Your task to perform on an android device: turn off sleep mode Image 0: 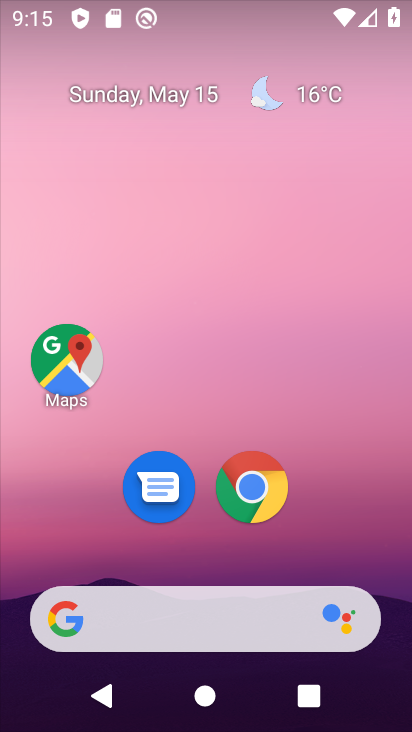
Step 0: drag from (396, 607) to (298, 34)
Your task to perform on an android device: turn off sleep mode Image 1: 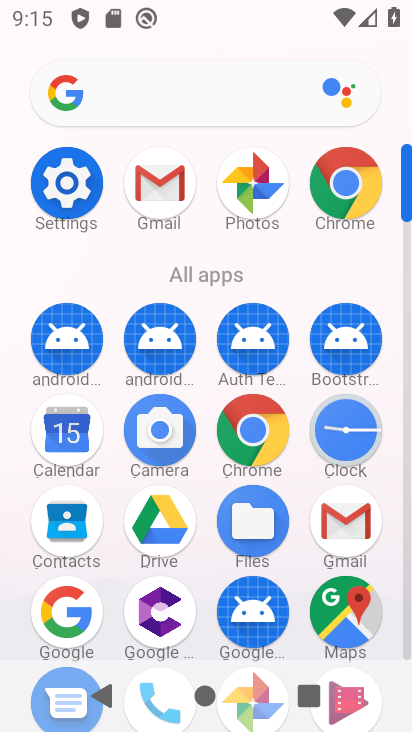
Step 1: click (407, 649)
Your task to perform on an android device: turn off sleep mode Image 2: 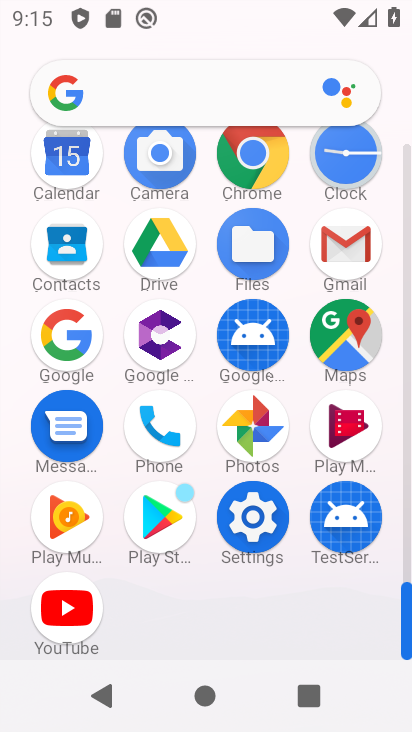
Step 2: click (253, 513)
Your task to perform on an android device: turn off sleep mode Image 3: 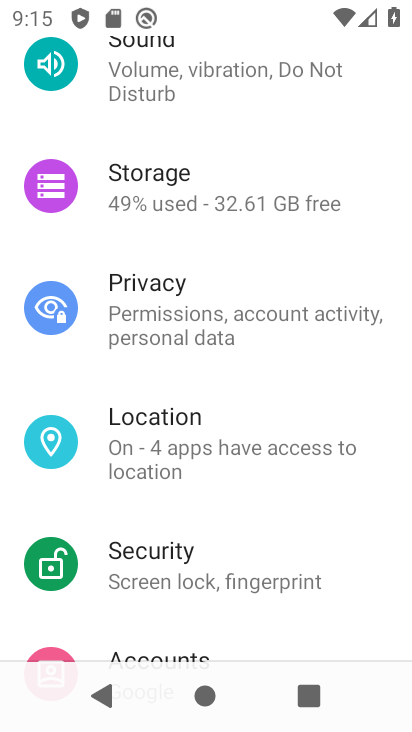
Step 3: drag from (363, 159) to (397, 479)
Your task to perform on an android device: turn off sleep mode Image 4: 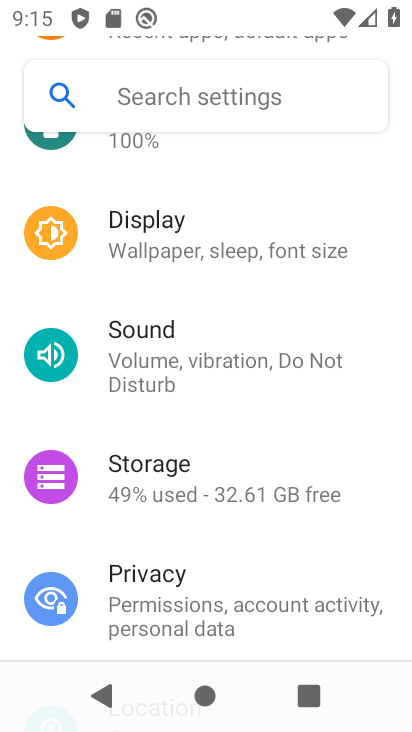
Step 4: drag from (374, 258) to (346, 479)
Your task to perform on an android device: turn off sleep mode Image 5: 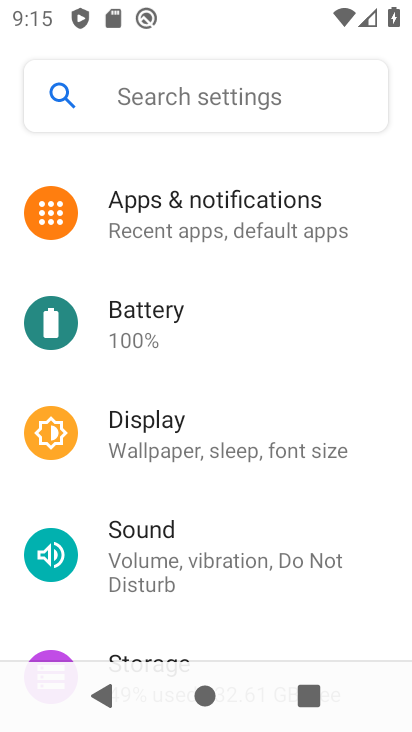
Step 5: click (150, 456)
Your task to perform on an android device: turn off sleep mode Image 6: 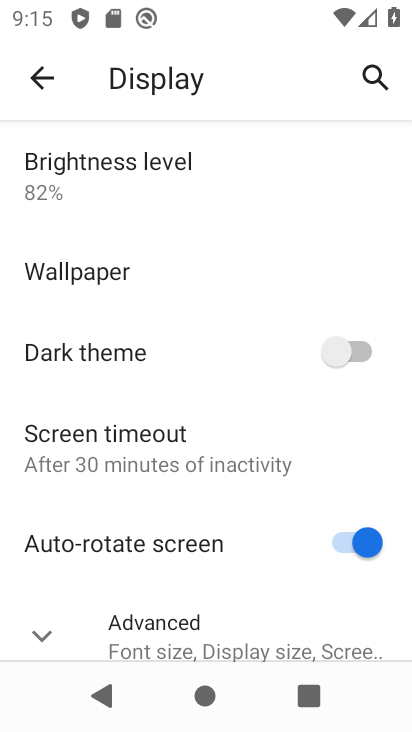
Step 6: click (27, 603)
Your task to perform on an android device: turn off sleep mode Image 7: 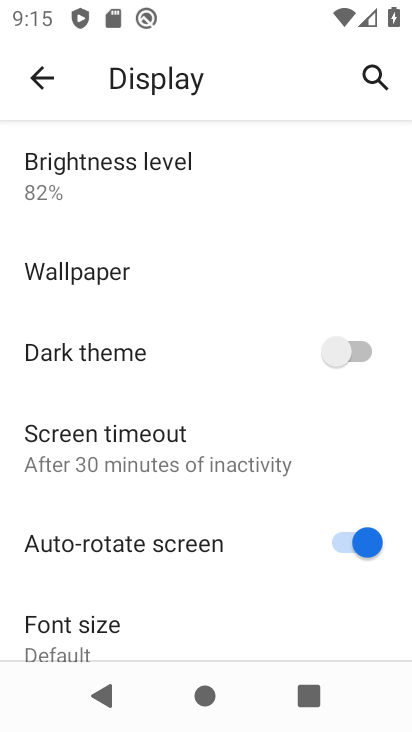
Step 7: task complete